Your task to perform on an android device: stop showing notifications on the lock screen Image 0: 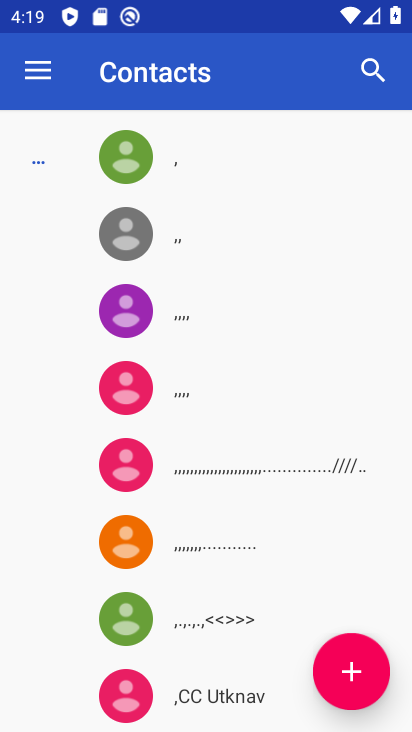
Step 0: press home button
Your task to perform on an android device: stop showing notifications on the lock screen Image 1: 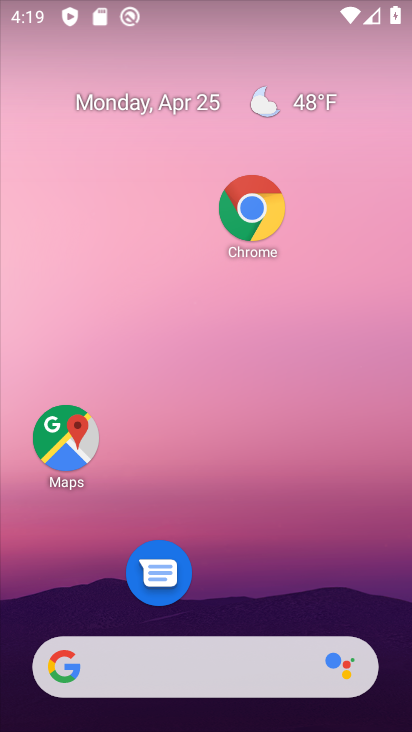
Step 1: drag from (241, 345) to (257, 101)
Your task to perform on an android device: stop showing notifications on the lock screen Image 2: 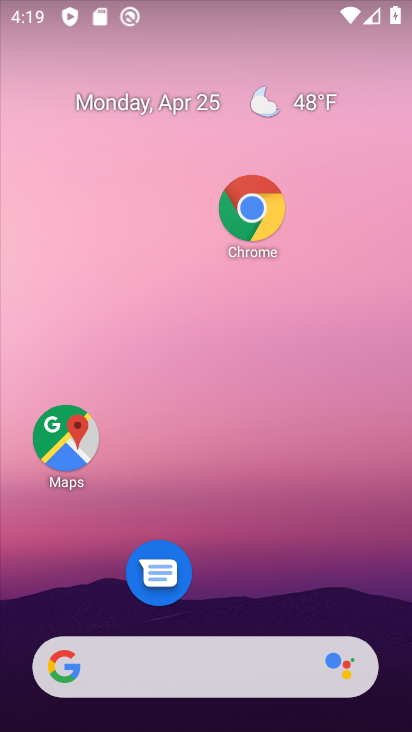
Step 2: drag from (237, 587) to (263, 112)
Your task to perform on an android device: stop showing notifications on the lock screen Image 3: 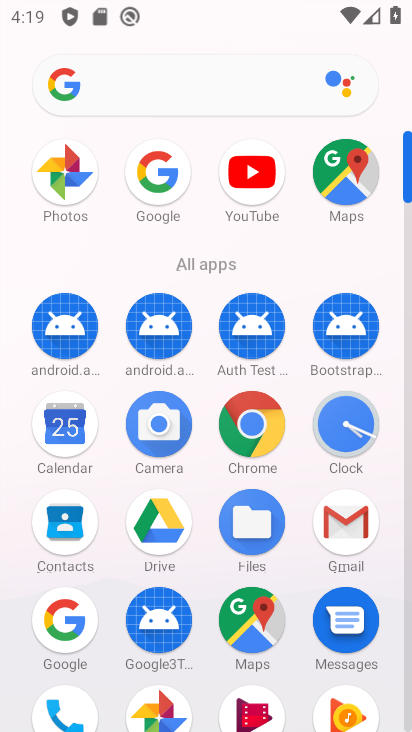
Step 3: drag from (109, 591) to (140, 216)
Your task to perform on an android device: stop showing notifications on the lock screen Image 4: 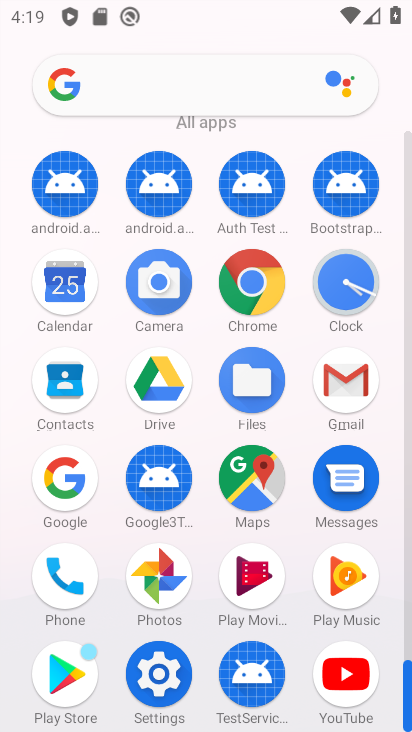
Step 4: click (159, 668)
Your task to perform on an android device: stop showing notifications on the lock screen Image 5: 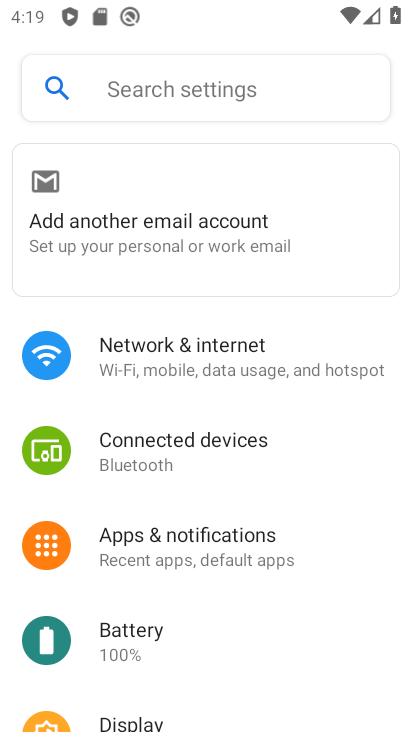
Step 5: click (178, 543)
Your task to perform on an android device: stop showing notifications on the lock screen Image 6: 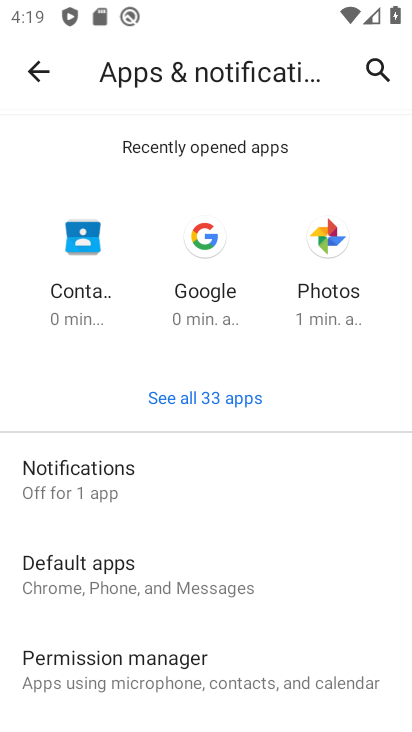
Step 6: click (120, 488)
Your task to perform on an android device: stop showing notifications on the lock screen Image 7: 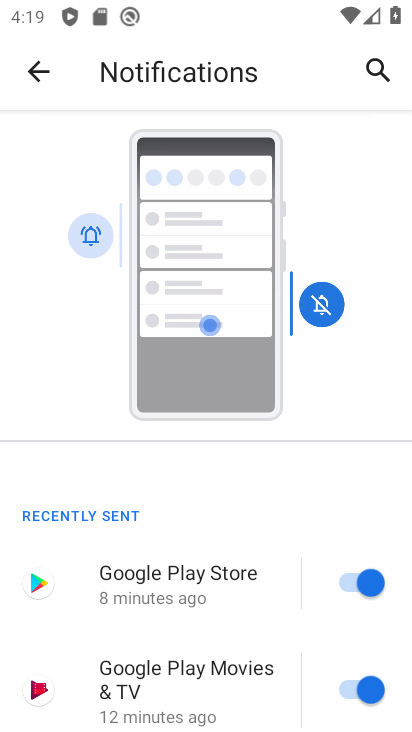
Step 7: drag from (201, 638) to (242, 248)
Your task to perform on an android device: stop showing notifications on the lock screen Image 8: 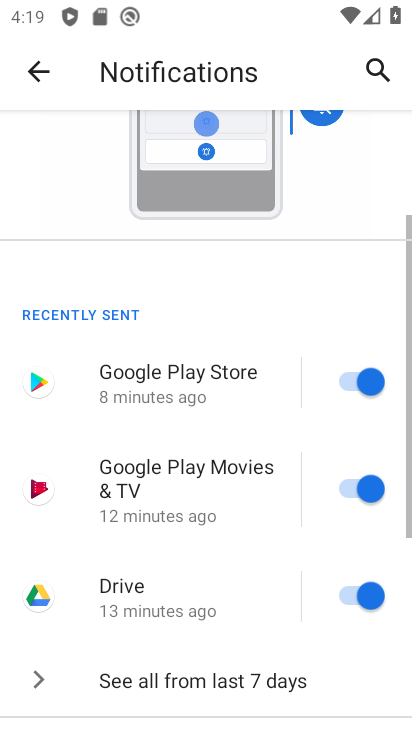
Step 8: drag from (235, 535) to (253, 322)
Your task to perform on an android device: stop showing notifications on the lock screen Image 9: 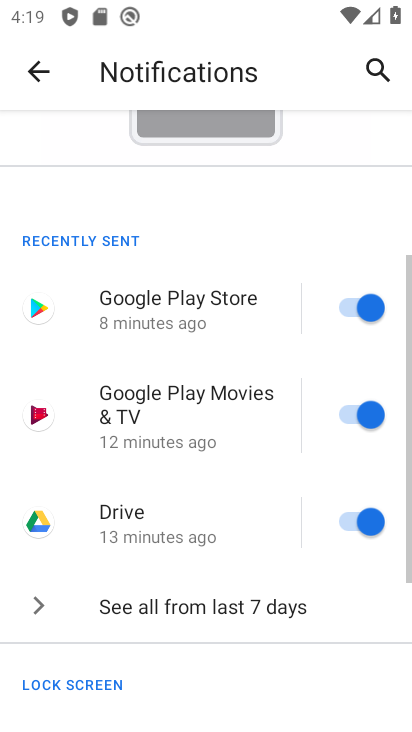
Step 9: drag from (238, 587) to (242, 384)
Your task to perform on an android device: stop showing notifications on the lock screen Image 10: 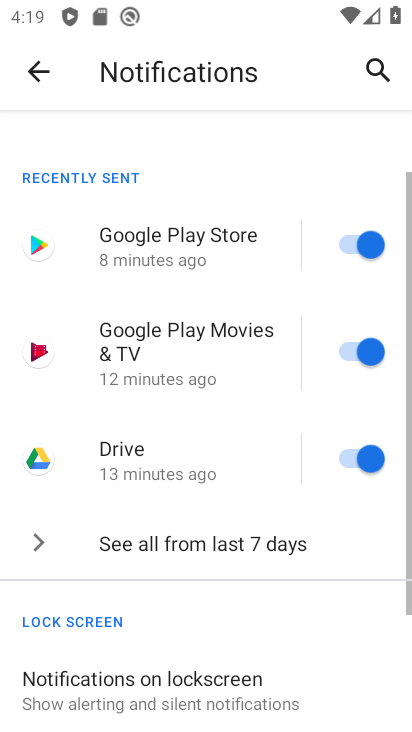
Step 10: drag from (237, 602) to (237, 380)
Your task to perform on an android device: stop showing notifications on the lock screen Image 11: 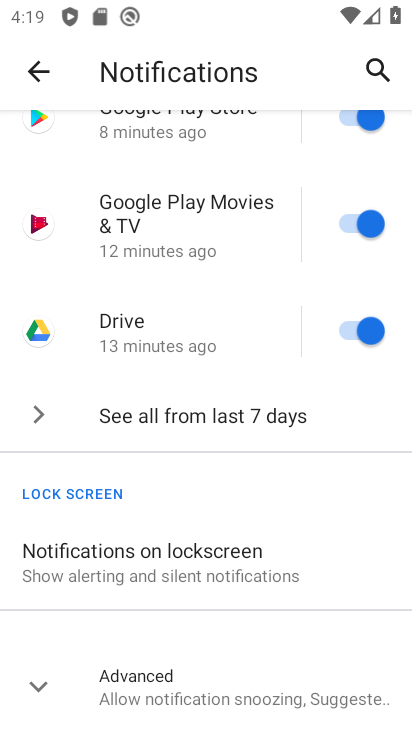
Step 11: click (193, 544)
Your task to perform on an android device: stop showing notifications on the lock screen Image 12: 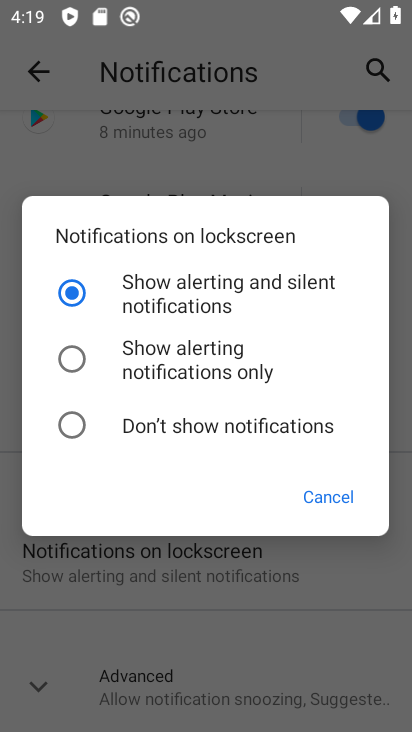
Step 12: click (182, 421)
Your task to perform on an android device: stop showing notifications on the lock screen Image 13: 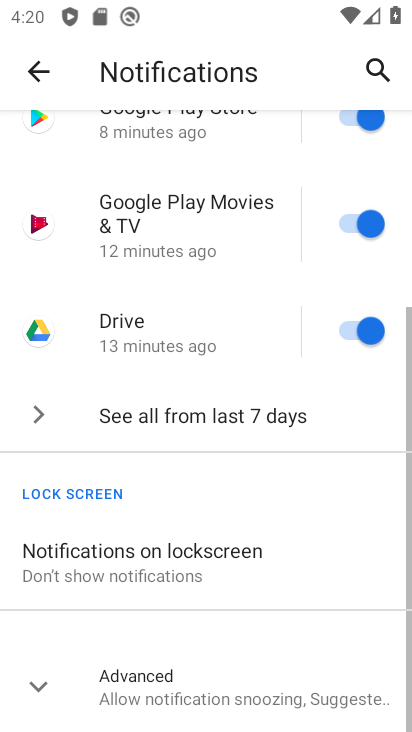
Step 13: task complete